Your task to perform on an android device: find snoozed emails in the gmail app Image 0: 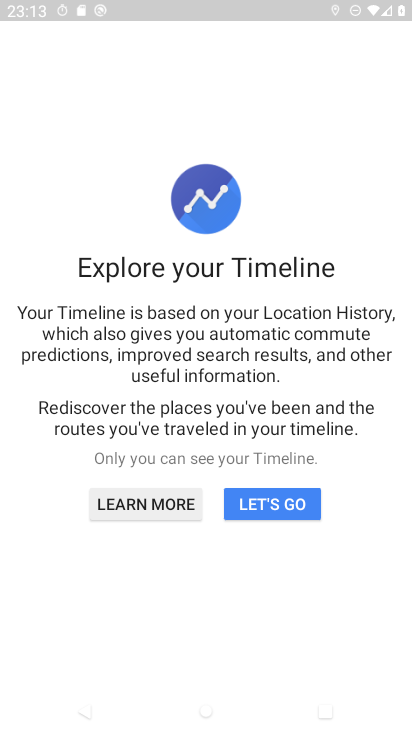
Step 0: press home button
Your task to perform on an android device: find snoozed emails in the gmail app Image 1: 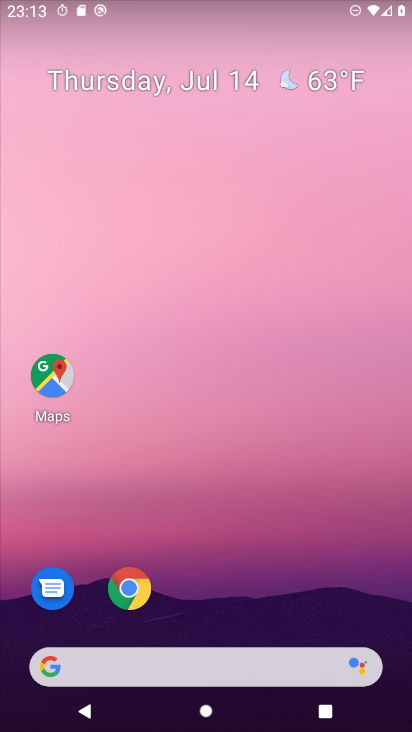
Step 1: drag from (355, 590) to (402, 121)
Your task to perform on an android device: find snoozed emails in the gmail app Image 2: 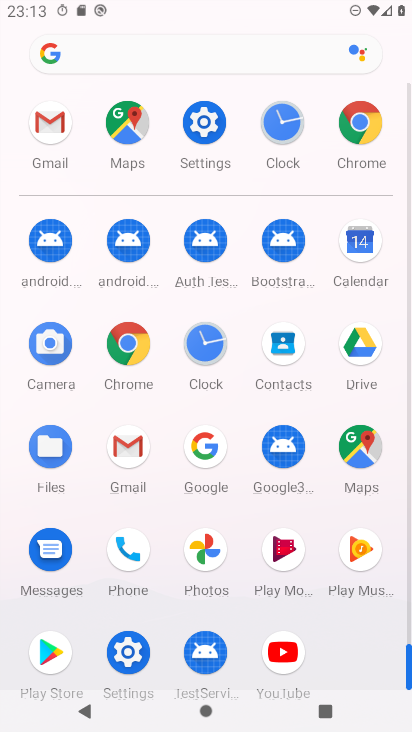
Step 2: click (54, 136)
Your task to perform on an android device: find snoozed emails in the gmail app Image 3: 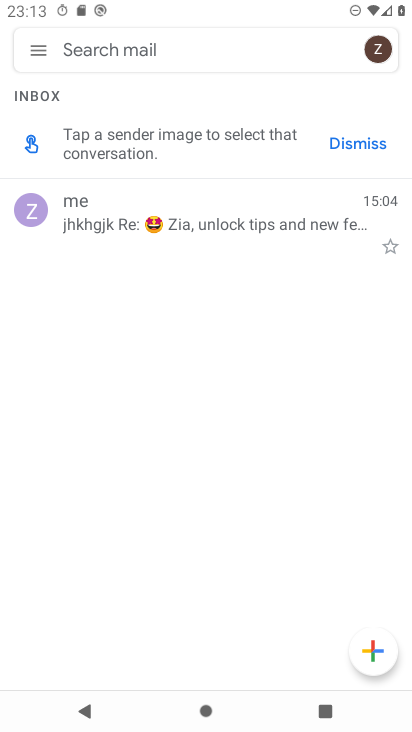
Step 3: click (36, 51)
Your task to perform on an android device: find snoozed emails in the gmail app Image 4: 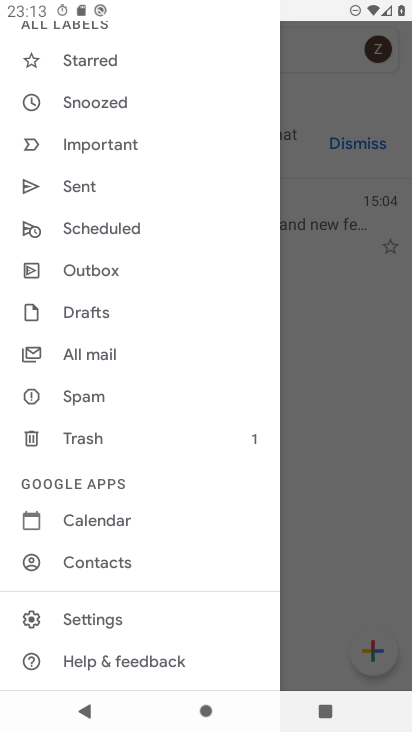
Step 4: click (83, 105)
Your task to perform on an android device: find snoozed emails in the gmail app Image 5: 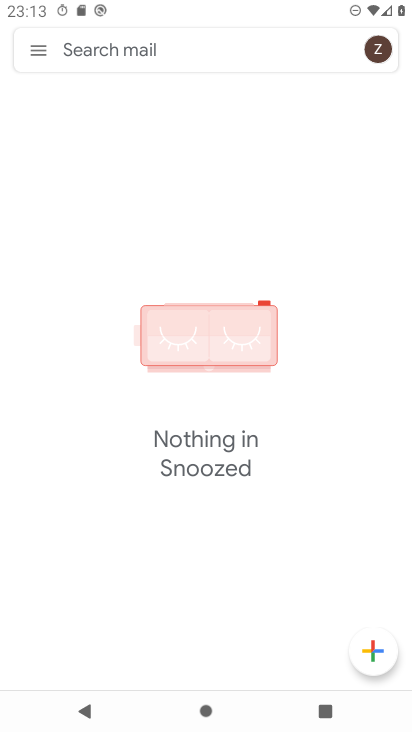
Step 5: task complete